Your task to perform on an android device: install app "PlayWell" Image 0: 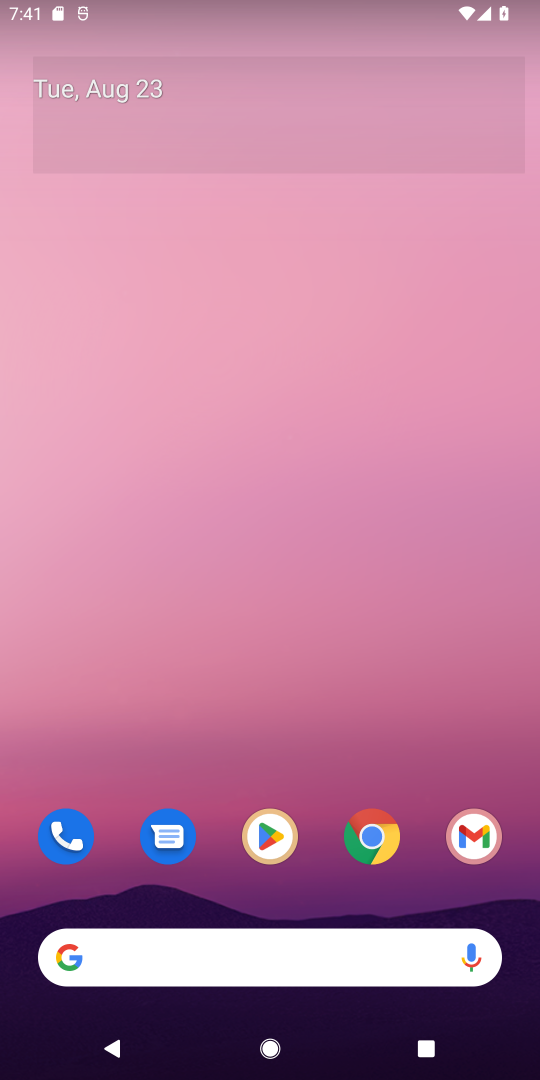
Step 0: click (258, 831)
Your task to perform on an android device: install app "PlayWell" Image 1: 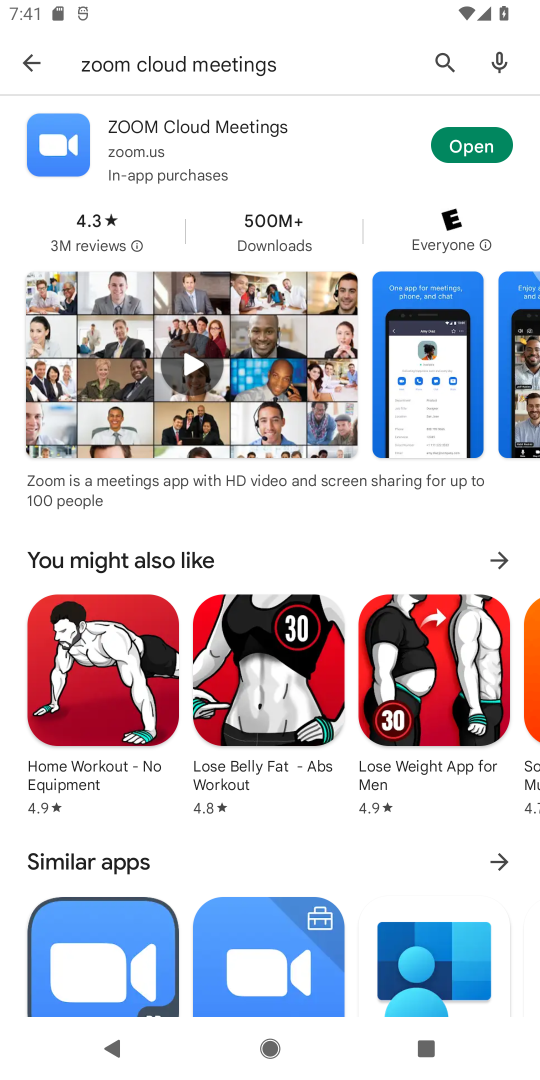
Step 1: click (446, 65)
Your task to perform on an android device: install app "PlayWell" Image 2: 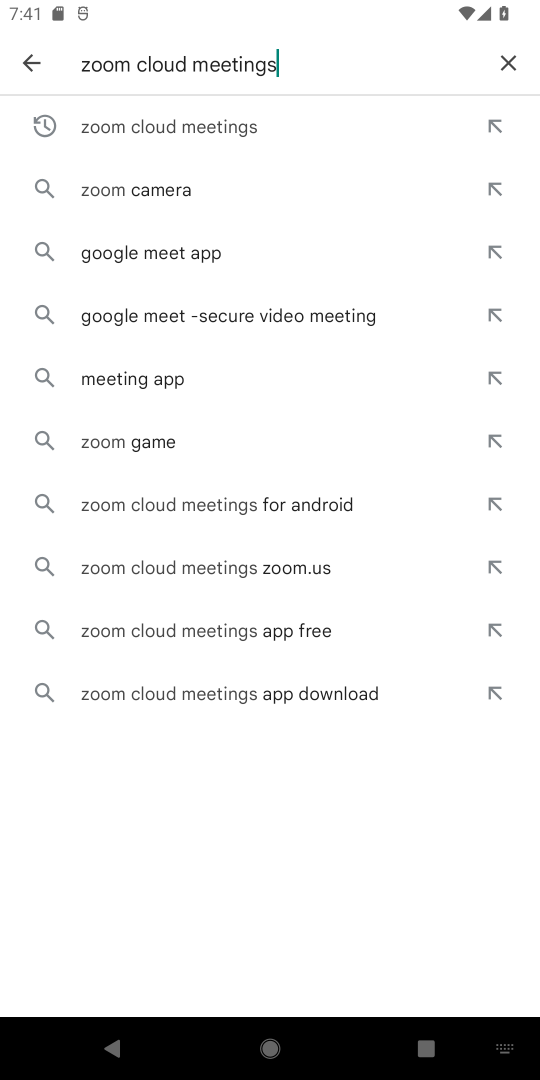
Step 2: click (513, 72)
Your task to perform on an android device: install app "PlayWell" Image 3: 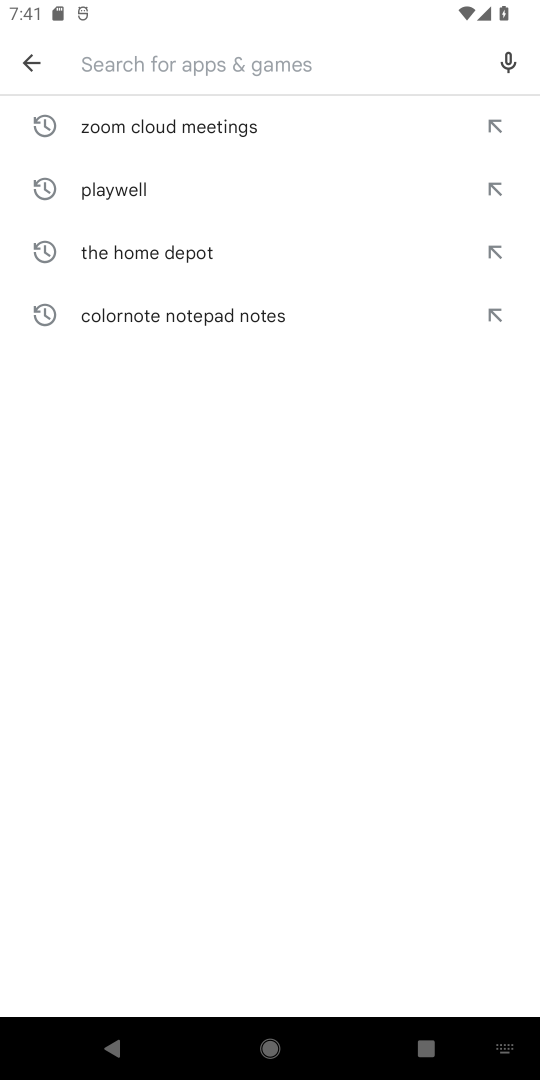
Step 3: type "PlayWell"
Your task to perform on an android device: install app "PlayWell" Image 4: 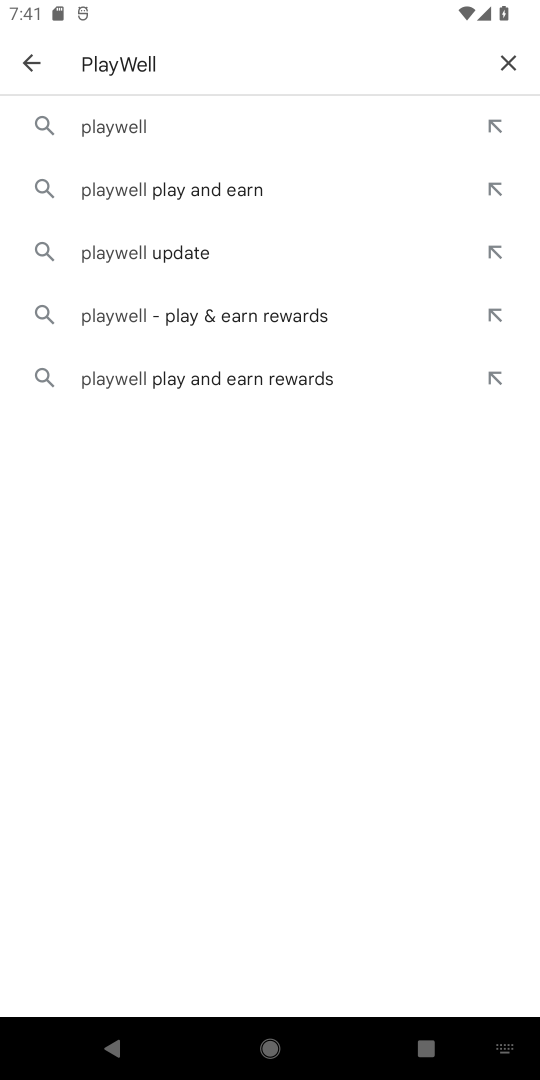
Step 4: click (103, 124)
Your task to perform on an android device: install app "PlayWell" Image 5: 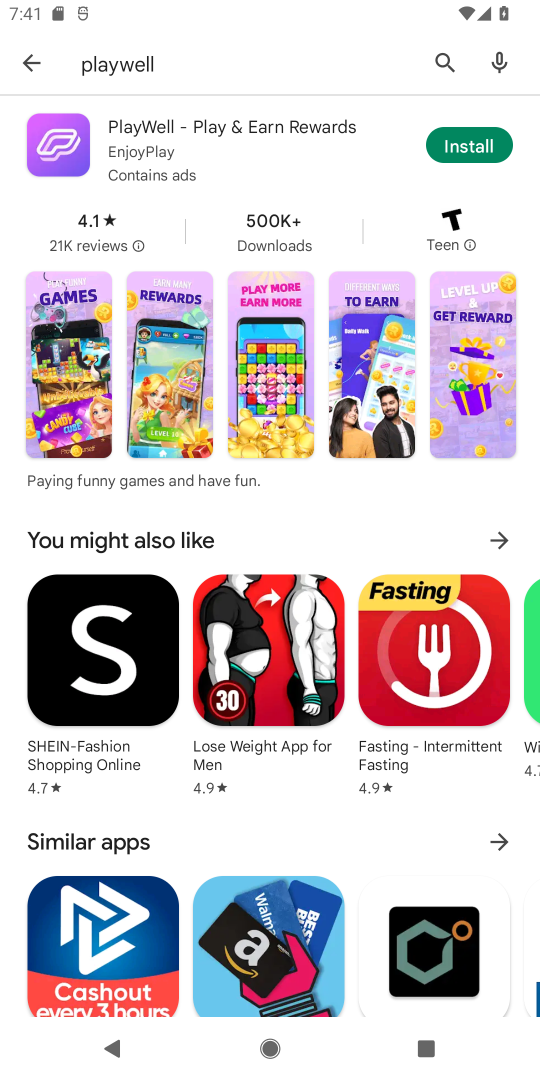
Step 5: click (484, 146)
Your task to perform on an android device: install app "PlayWell" Image 6: 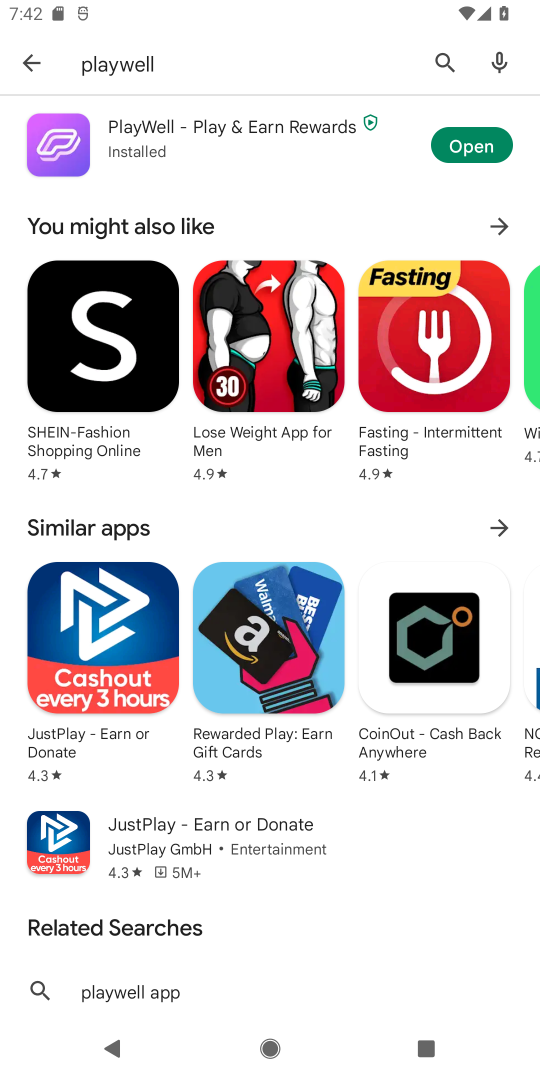
Step 6: task complete